Your task to perform on an android device: add a contact in the contacts app Image 0: 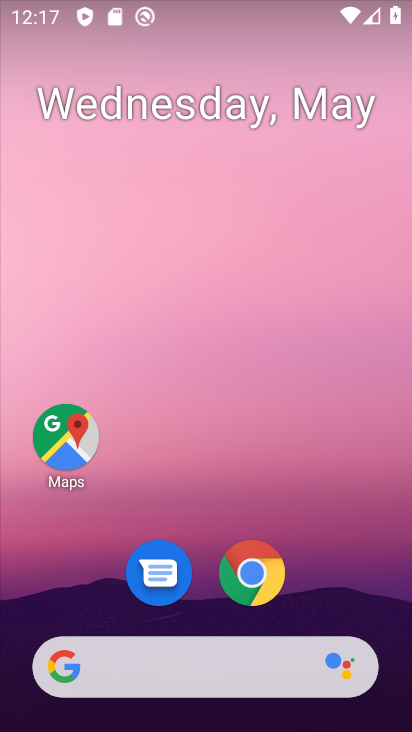
Step 0: drag from (376, 587) to (327, 146)
Your task to perform on an android device: add a contact in the contacts app Image 1: 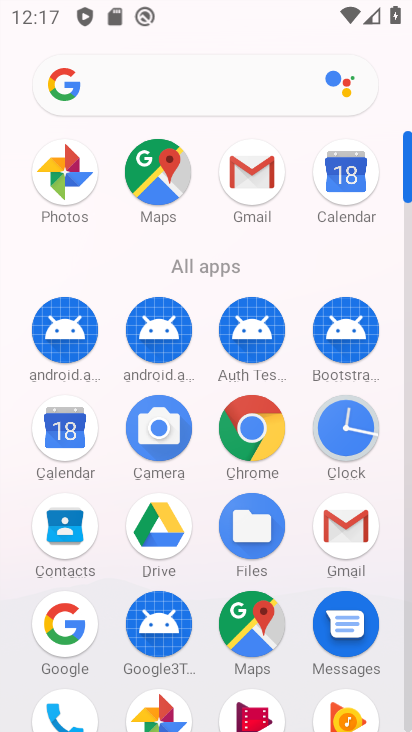
Step 1: drag from (208, 578) to (190, 312)
Your task to perform on an android device: add a contact in the contacts app Image 2: 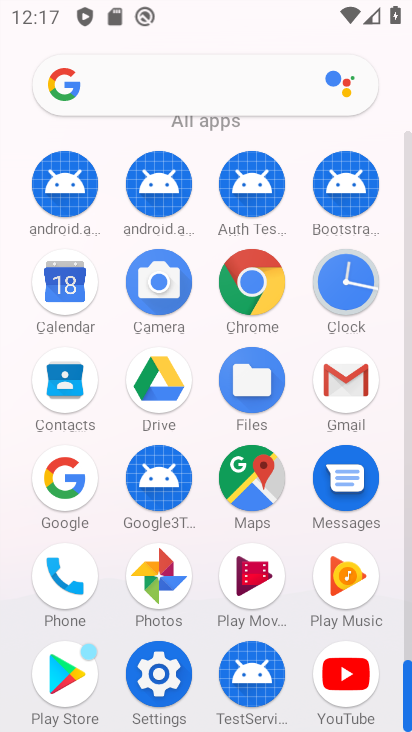
Step 2: click (77, 388)
Your task to perform on an android device: add a contact in the contacts app Image 3: 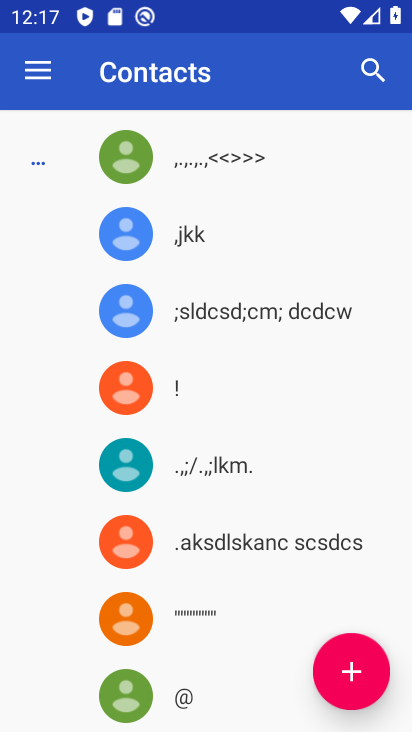
Step 3: click (357, 670)
Your task to perform on an android device: add a contact in the contacts app Image 4: 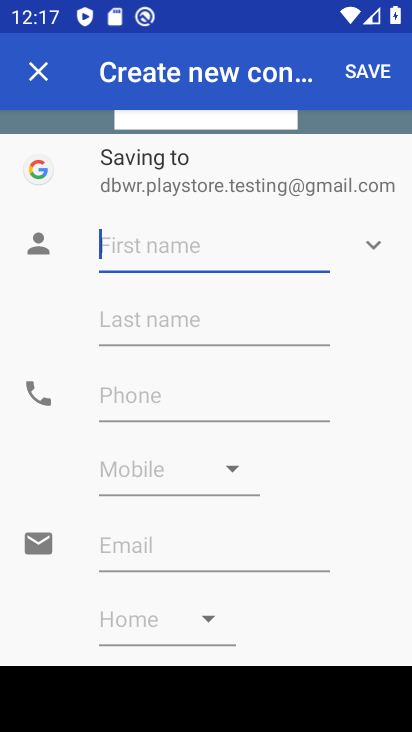
Step 4: click (217, 260)
Your task to perform on an android device: add a contact in the contacts app Image 5: 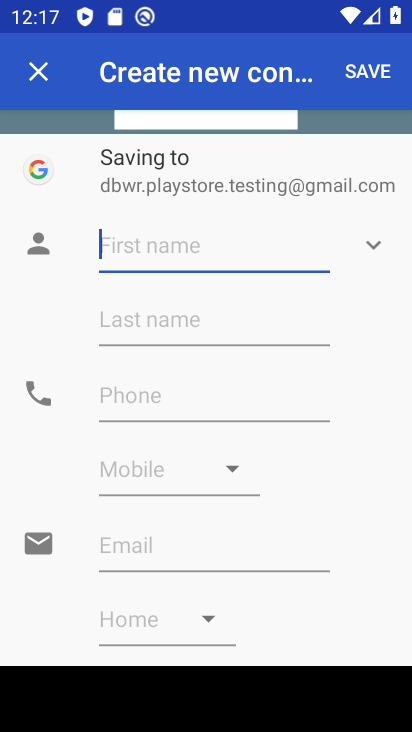
Step 5: type "lolll"
Your task to perform on an android device: add a contact in the contacts app Image 6: 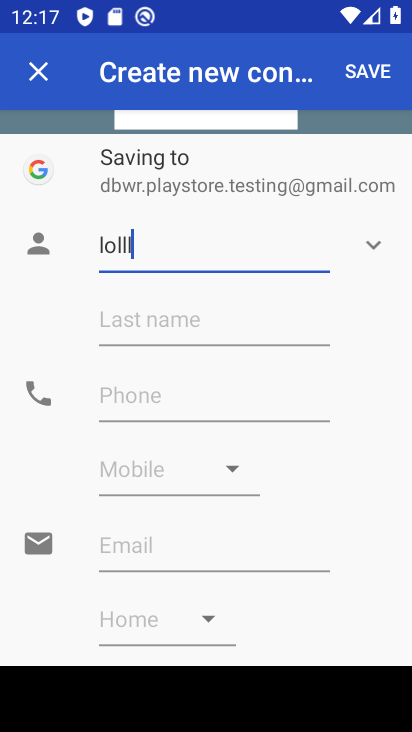
Step 6: click (184, 396)
Your task to perform on an android device: add a contact in the contacts app Image 7: 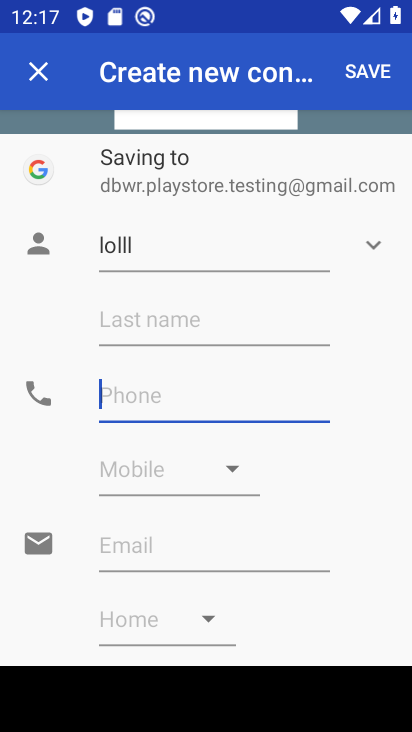
Step 7: type "1234567890"
Your task to perform on an android device: add a contact in the contacts app Image 8: 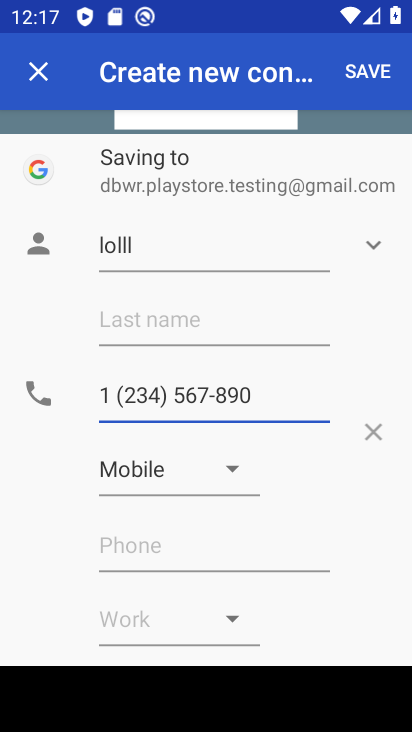
Step 8: click (379, 77)
Your task to perform on an android device: add a contact in the contacts app Image 9: 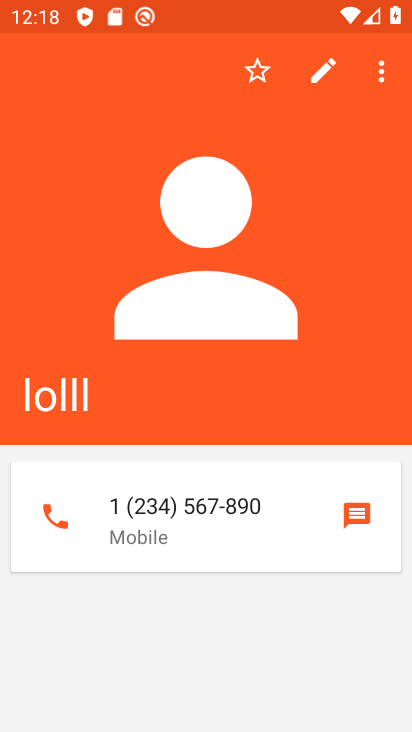
Step 9: task complete